Your task to perform on an android device: install app "Google Home" Image 0: 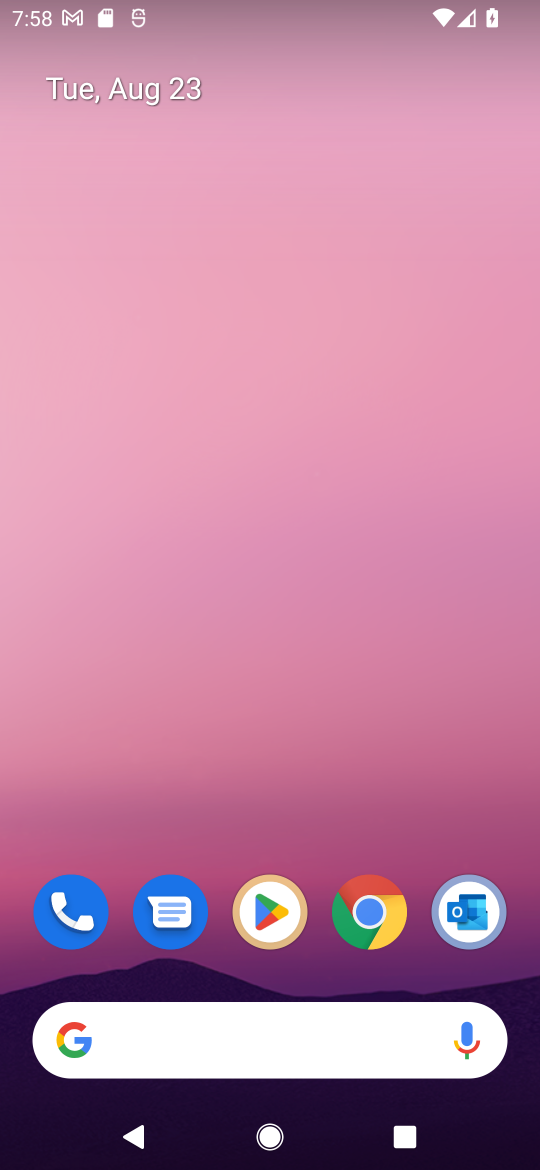
Step 0: click (267, 913)
Your task to perform on an android device: install app "Google Home" Image 1: 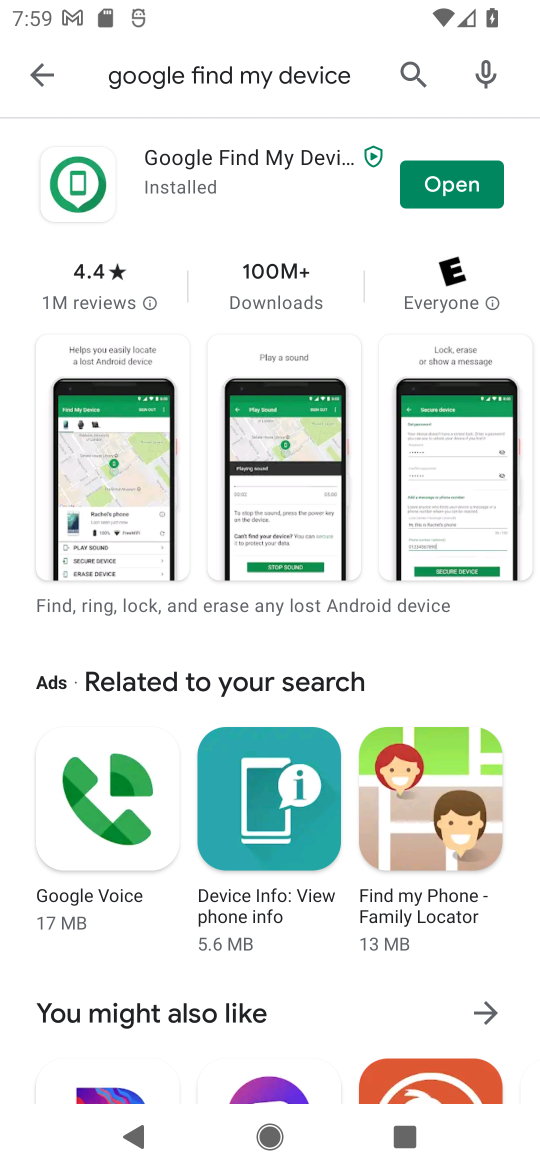
Step 1: click (407, 73)
Your task to perform on an android device: install app "Google Home" Image 2: 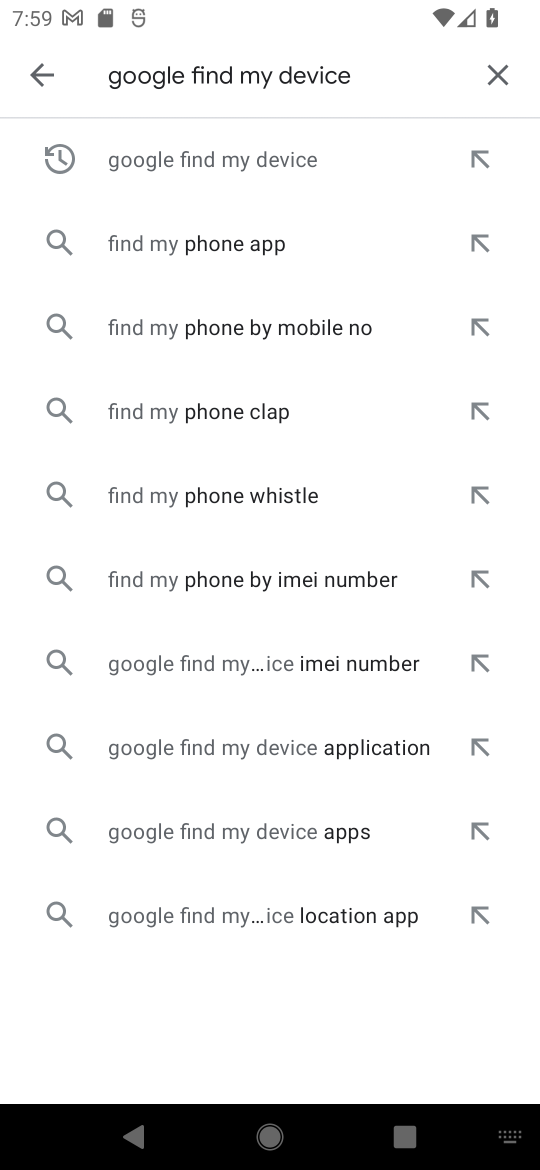
Step 2: click (491, 70)
Your task to perform on an android device: install app "Google Home" Image 3: 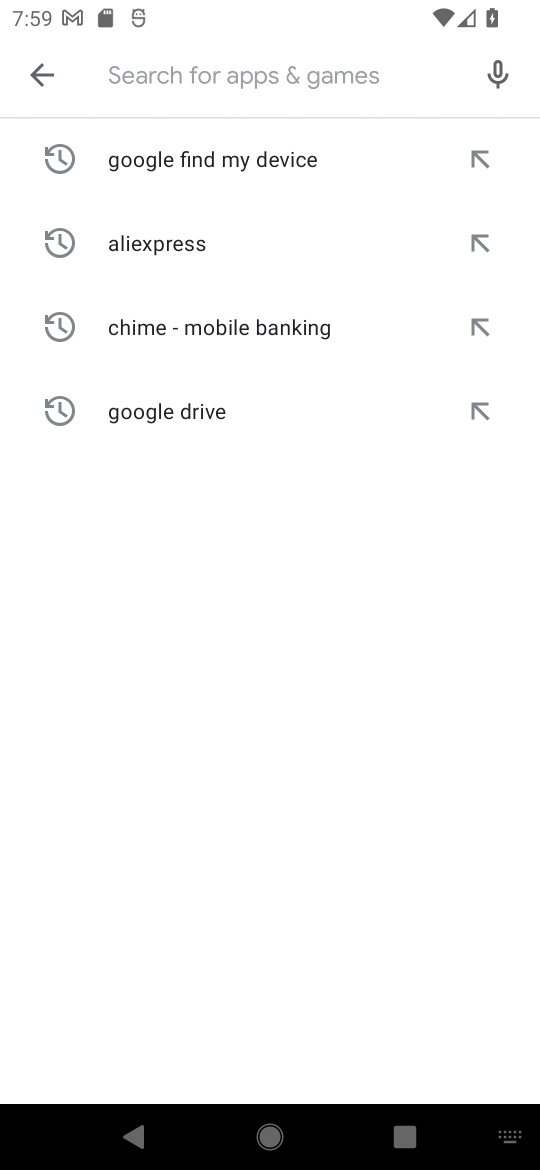
Step 3: type "Google Home "
Your task to perform on an android device: install app "Google Home" Image 4: 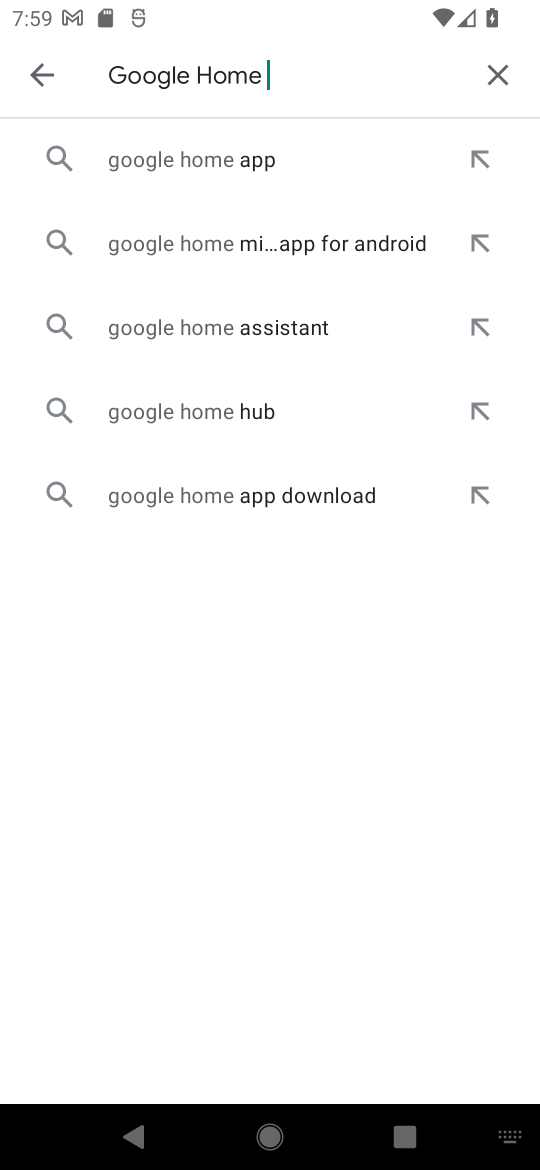
Step 4: click (182, 152)
Your task to perform on an android device: install app "Google Home" Image 5: 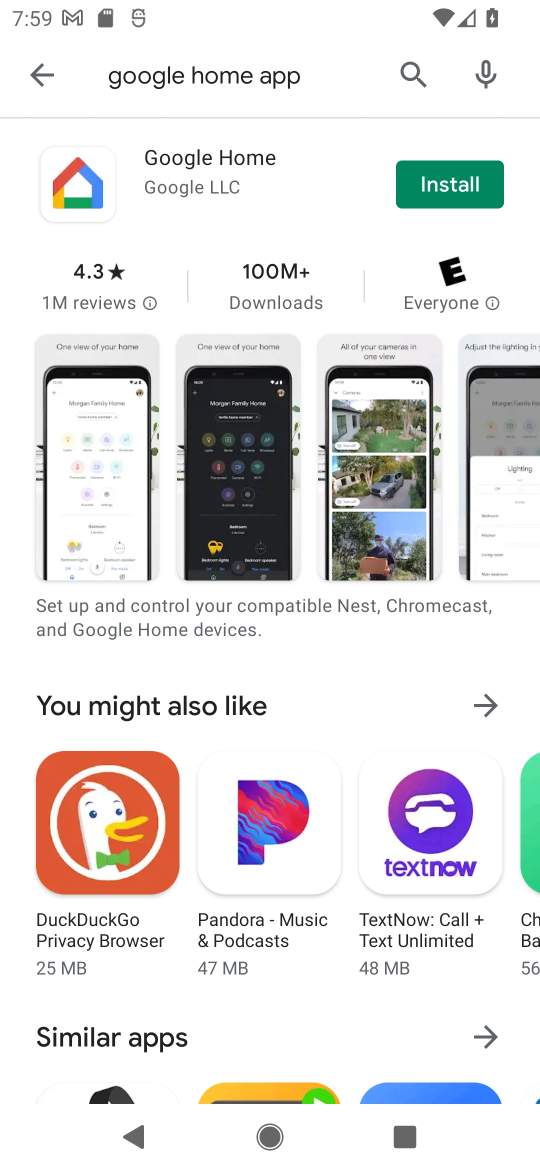
Step 5: click (438, 183)
Your task to perform on an android device: install app "Google Home" Image 6: 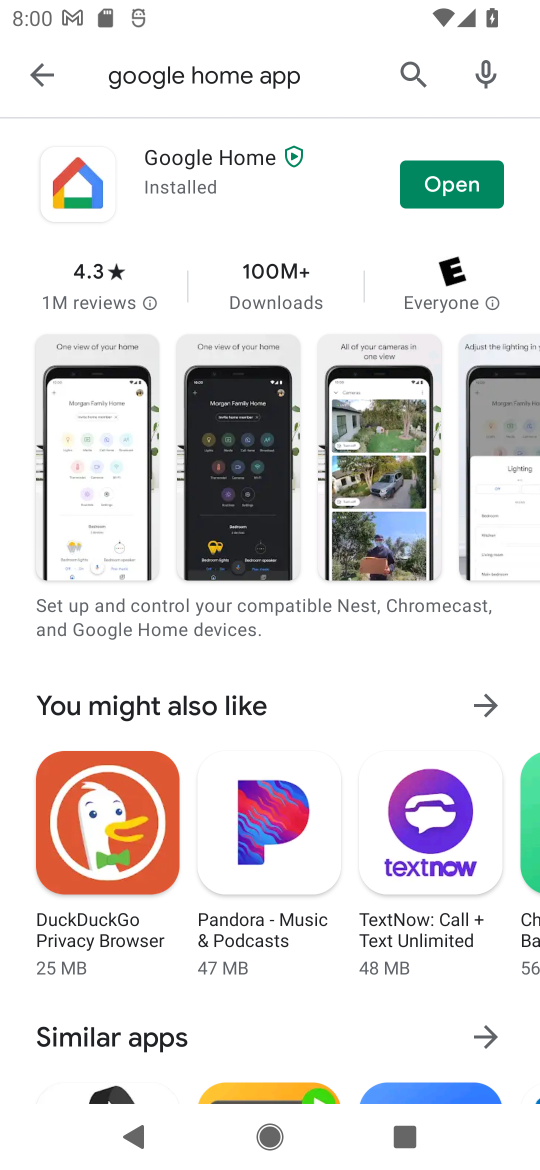
Step 6: task complete